Your task to perform on an android device: Go to Maps Image 0: 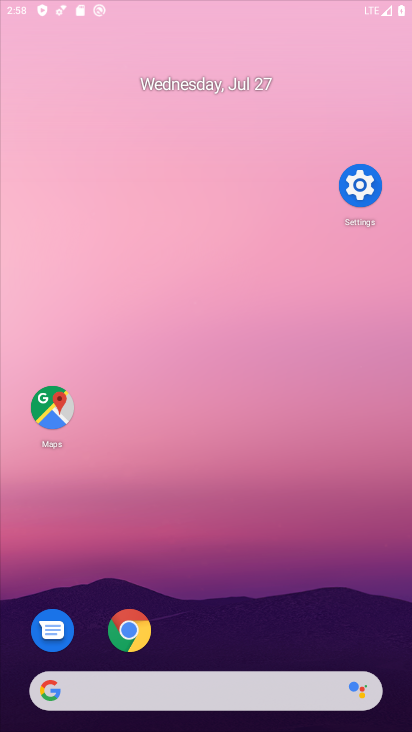
Step 0: press home button
Your task to perform on an android device: Go to Maps Image 1: 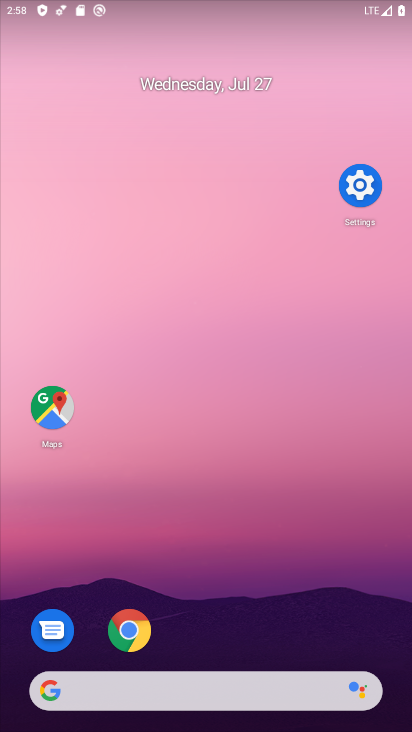
Step 1: drag from (242, 644) to (211, 1)
Your task to perform on an android device: Go to Maps Image 2: 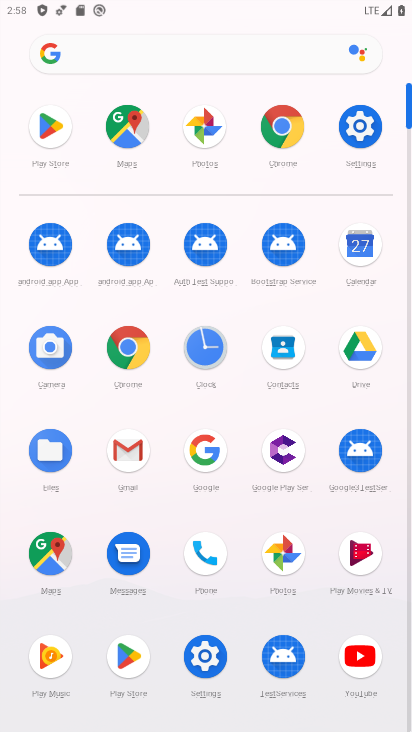
Step 2: click (126, 132)
Your task to perform on an android device: Go to Maps Image 3: 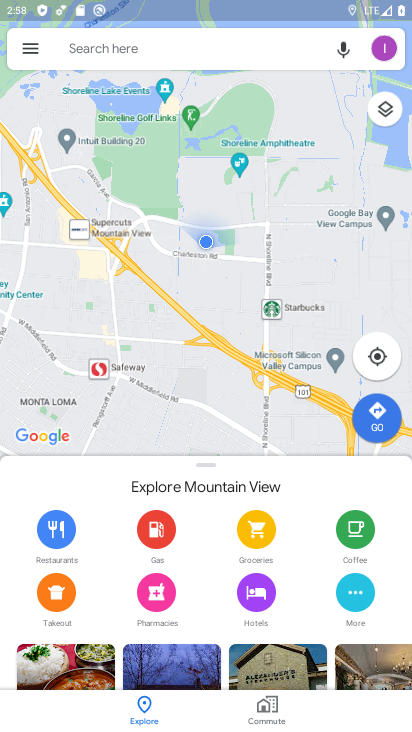
Step 3: task complete